Your task to perform on an android device: Do I have any events tomorrow? Image 0: 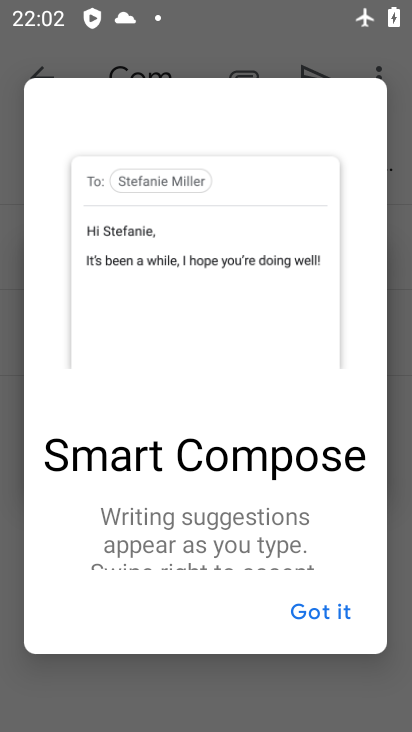
Step 0: press home button
Your task to perform on an android device: Do I have any events tomorrow? Image 1: 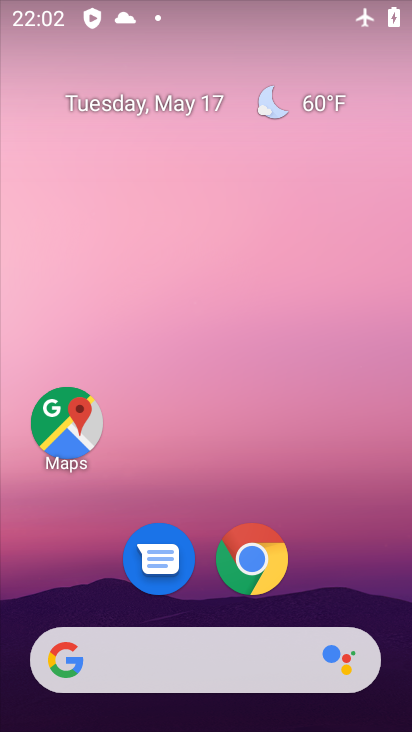
Step 1: drag from (338, 561) to (324, 189)
Your task to perform on an android device: Do I have any events tomorrow? Image 2: 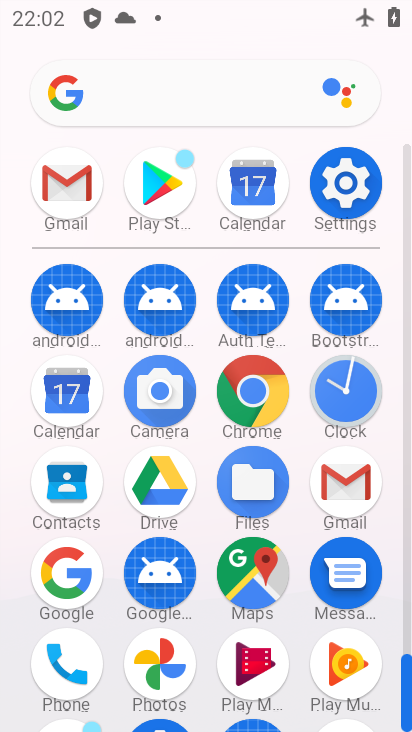
Step 2: click (64, 393)
Your task to perform on an android device: Do I have any events tomorrow? Image 3: 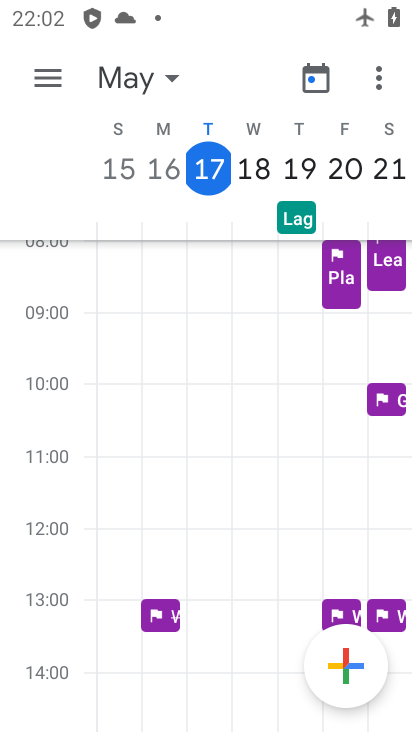
Step 3: drag from (242, 488) to (269, 369)
Your task to perform on an android device: Do I have any events tomorrow? Image 4: 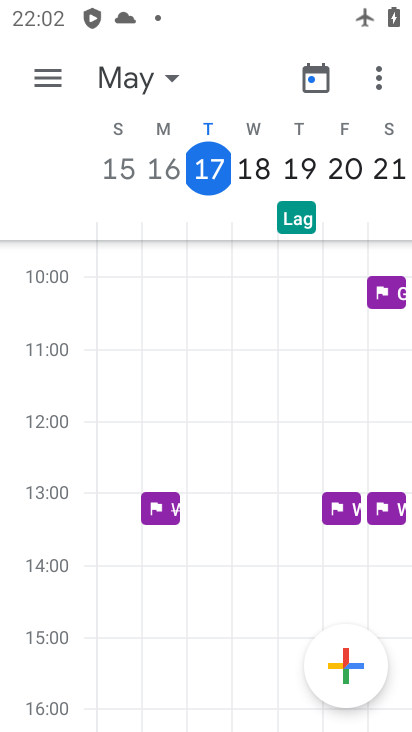
Step 4: click (274, 157)
Your task to perform on an android device: Do I have any events tomorrow? Image 5: 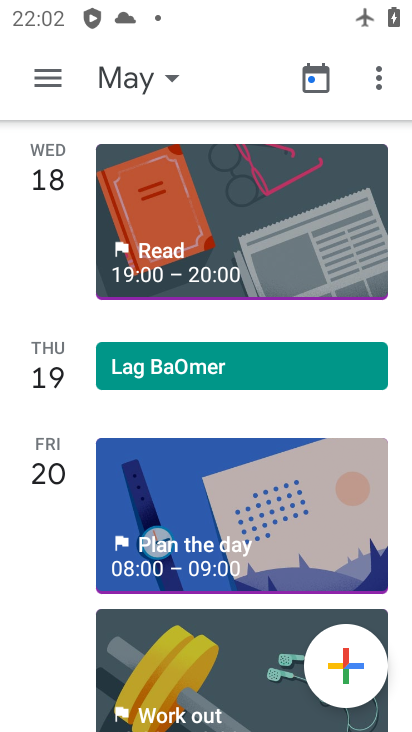
Step 5: click (57, 188)
Your task to perform on an android device: Do I have any events tomorrow? Image 6: 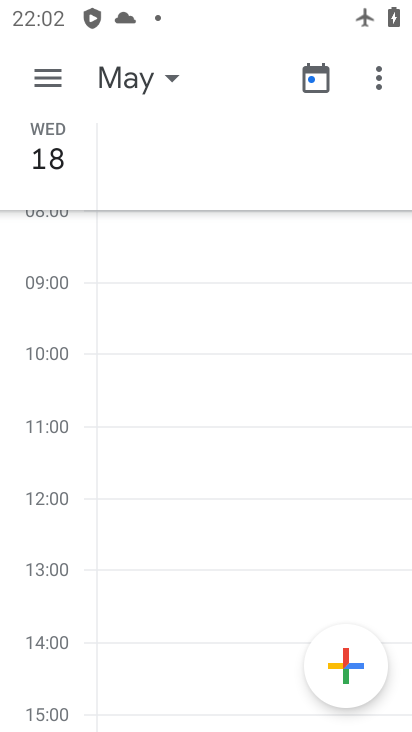
Step 6: task complete